Your task to perform on an android device: Open the phone app and click the voicemail tab. Image 0: 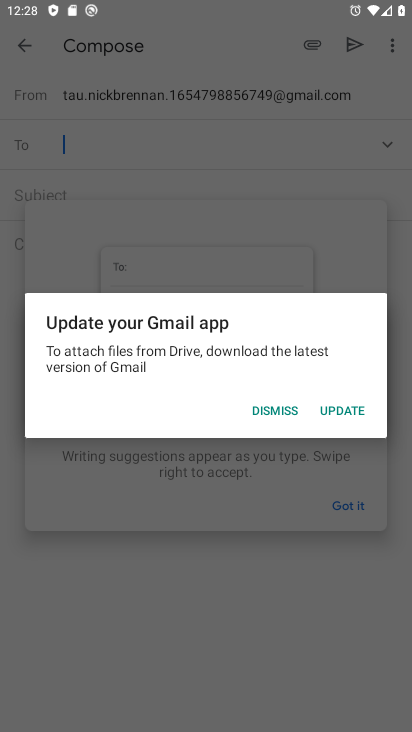
Step 0: click (266, 410)
Your task to perform on an android device: Open the phone app and click the voicemail tab. Image 1: 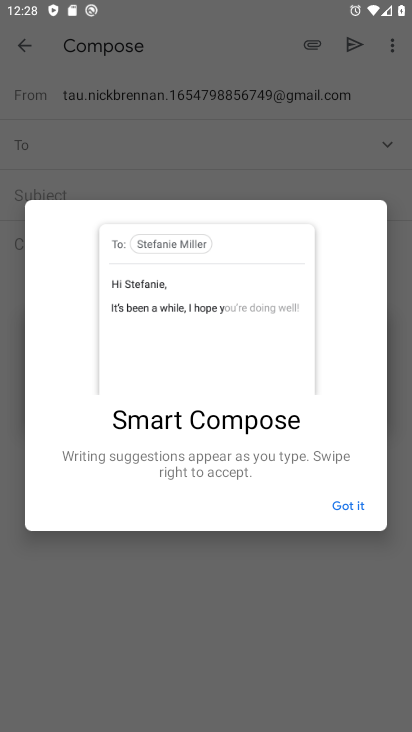
Step 1: press home button
Your task to perform on an android device: Open the phone app and click the voicemail tab. Image 2: 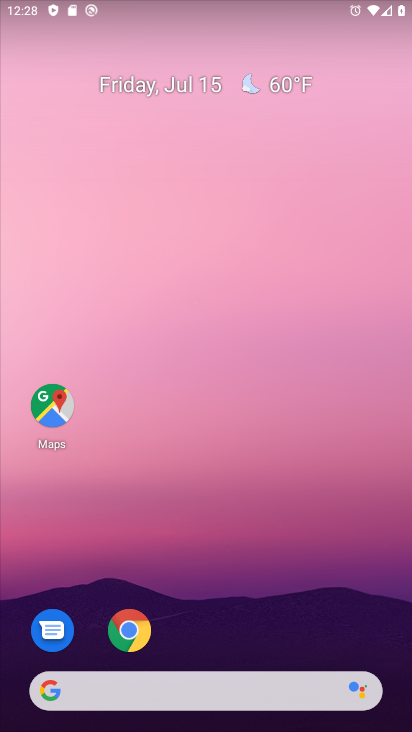
Step 2: drag from (188, 364) to (203, 54)
Your task to perform on an android device: Open the phone app and click the voicemail tab. Image 3: 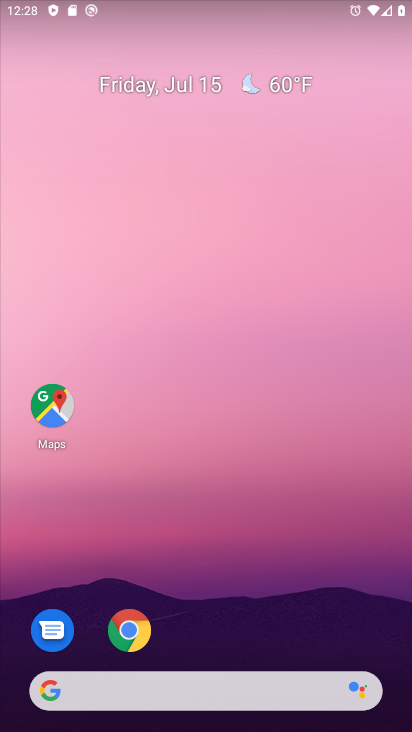
Step 3: drag from (184, 598) to (189, 41)
Your task to perform on an android device: Open the phone app and click the voicemail tab. Image 4: 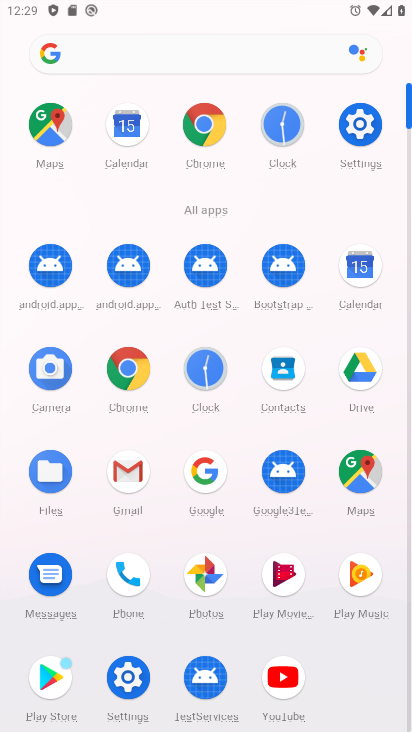
Step 4: click (125, 598)
Your task to perform on an android device: Open the phone app and click the voicemail tab. Image 5: 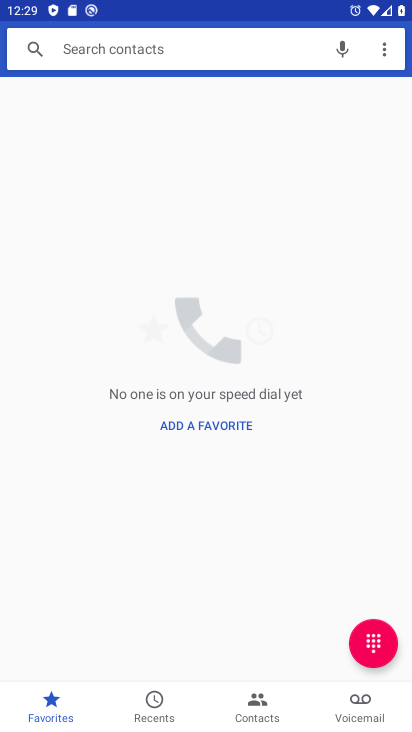
Step 5: click (368, 708)
Your task to perform on an android device: Open the phone app and click the voicemail tab. Image 6: 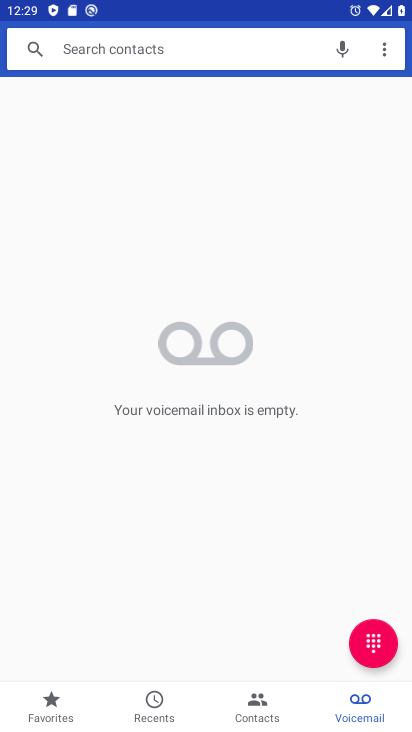
Step 6: task complete